Your task to perform on an android device: Search for the best selling jewelry on Etsy. Image 0: 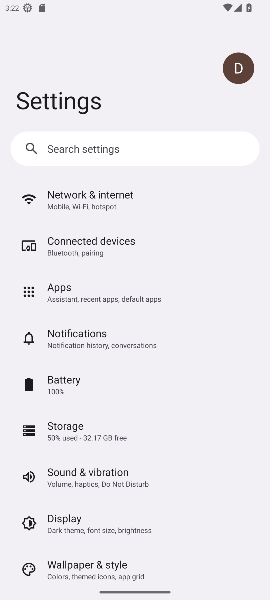
Step 0: press home button
Your task to perform on an android device: Search for the best selling jewelry on Etsy. Image 1: 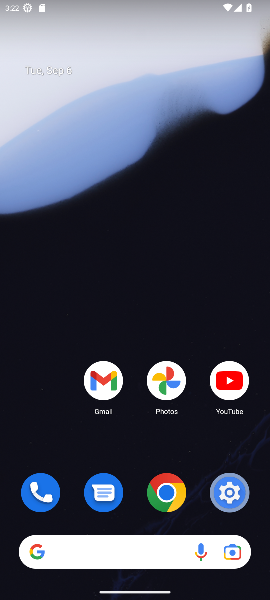
Step 1: drag from (201, 501) to (152, 36)
Your task to perform on an android device: Search for the best selling jewelry on Etsy. Image 2: 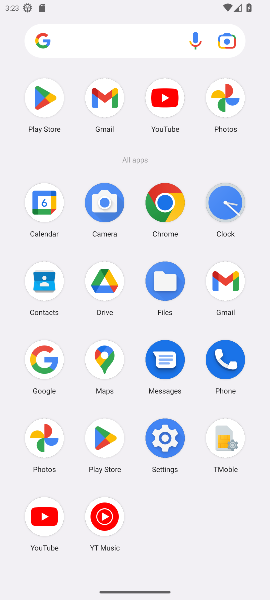
Step 2: click (48, 368)
Your task to perform on an android device: Search for the best selling jewelry on Etsy. Image 3: 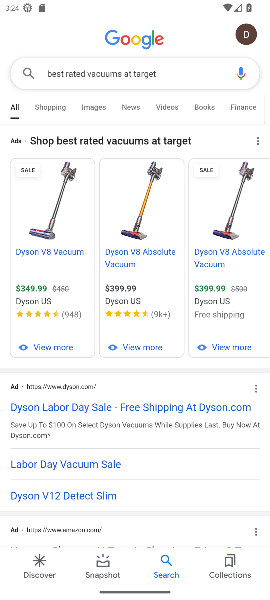
Step 3: press back button
Your task to perform on an android device: Search for the best selling jewelry on Etsy. Image 4: 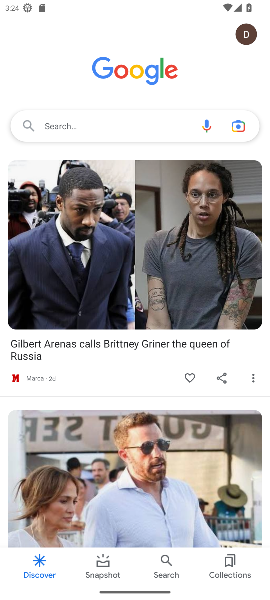
Step 4: click (100, 125)
Your task to perform on an android device: Search for the best selling jewelry on Etsy. Image 5: 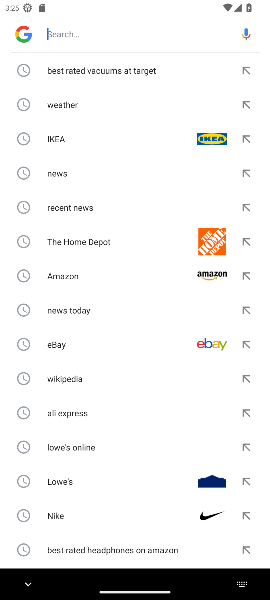
Step 5: type "best selling jewelry on Etsy"
Your task to perform on an android device: Search for the best selling jewelry on Etsy. Image 6: 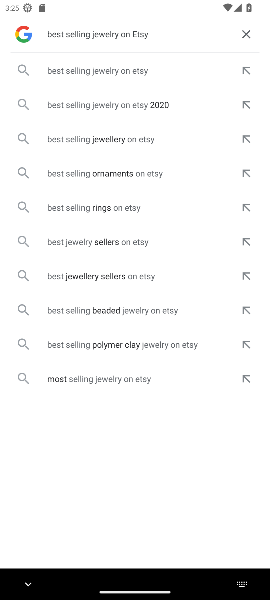
Step 6: click (119, 64)
Your task to perform on an android device: Search for the best selling jewelry on Etsy. Image 7: 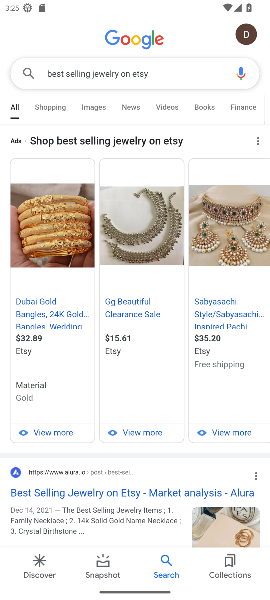
Step 7: task complete